Your task to perform on an android device: Open calendar and show me the first week of next month Image 0: 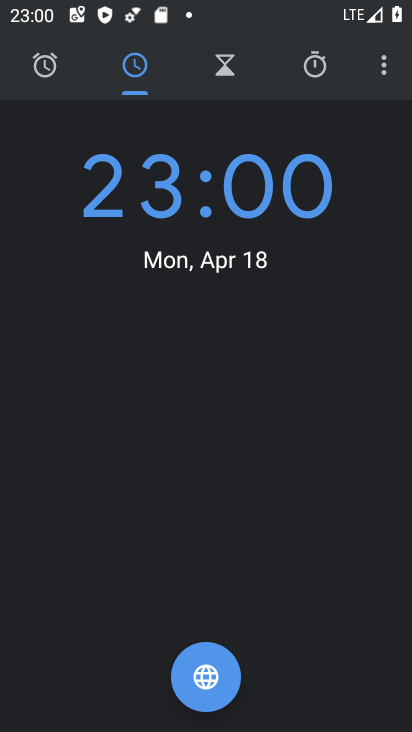
Step 0: press home button
Your task to perform on an android device: Open calendar and show me the first week of next month Image 1: 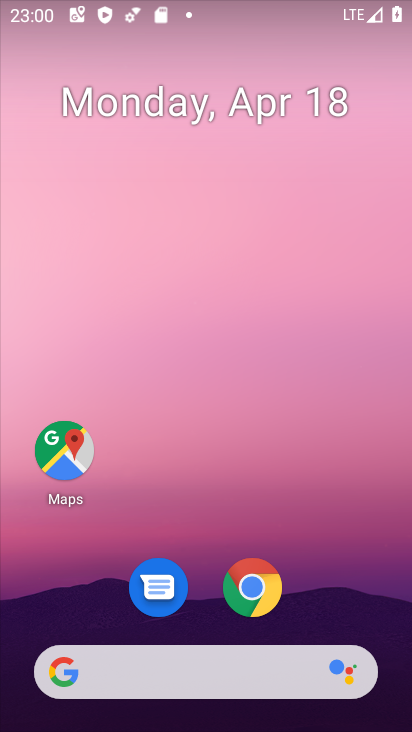
Step 1: drag from (347, 587) to (338, 162)
Your task to perform on an android device: Open calendar and show me the first week of next month Image 2: 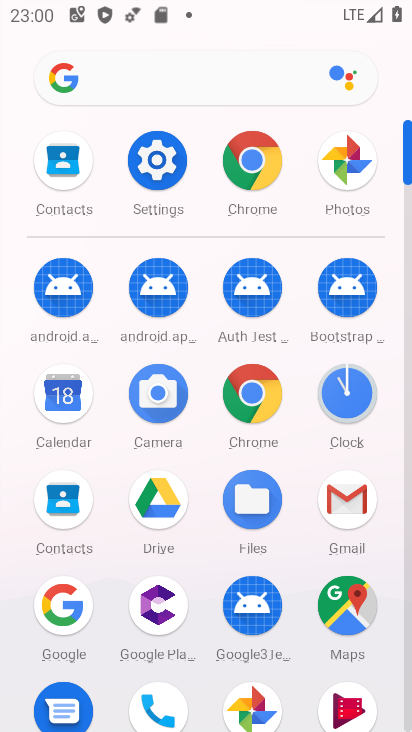
Step 2: click (59, 398)
Your task to perform on an android device: Open calendar and show me the first week of next month Image 3: 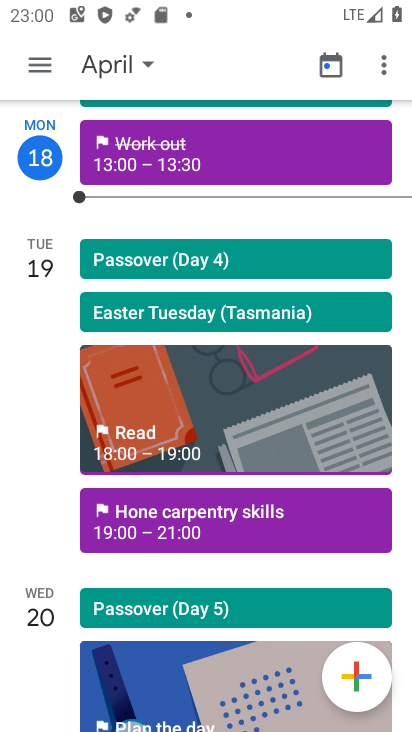
Step 3: click (112, 59)
Your task to perform on an android device: Open calendar and show me the first week of next month Image 4: 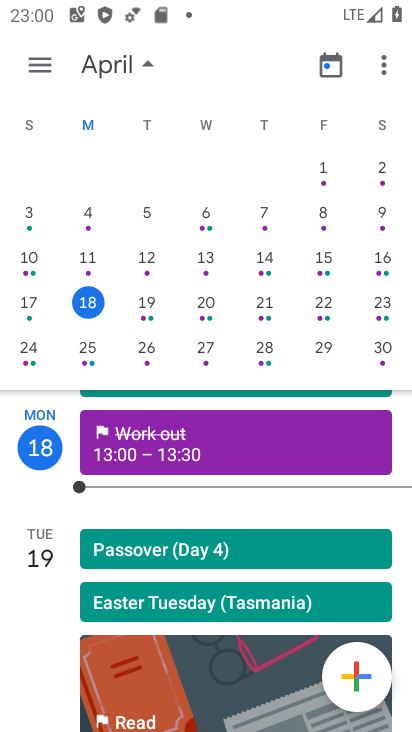
Step 4: drag from (378, 153) to (4, 141)
Your task to perform on an android device: Open calendar and show me the first week of next month Image 5: 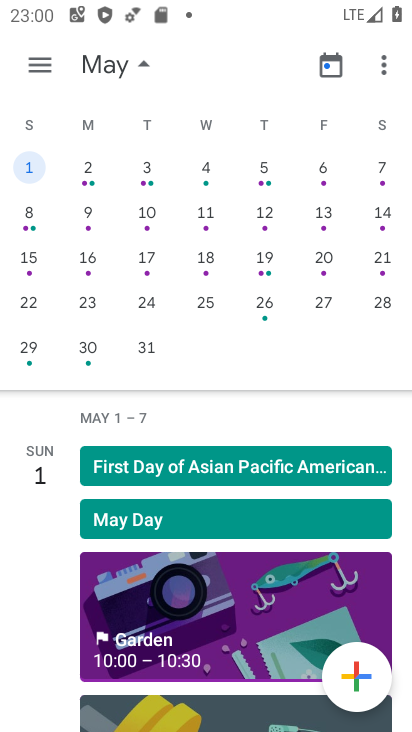
Step 5: click (20, 169)
Your task to perform on an android device: Open calendar and show me the first week of next month Image 6: 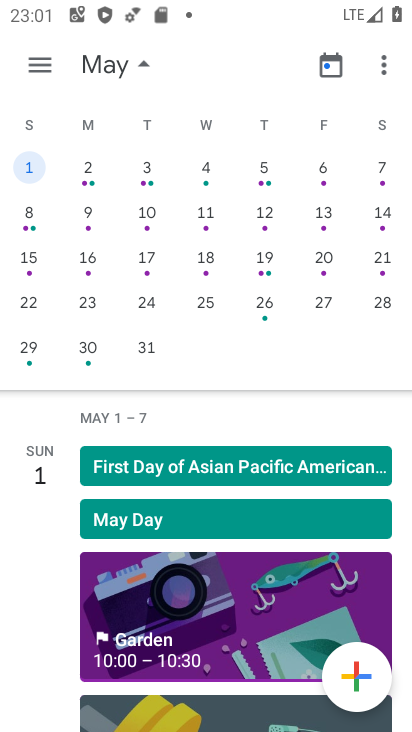
Step 6: task complete